Your task to perform on an android device: Open Yahoo.com Image 0: 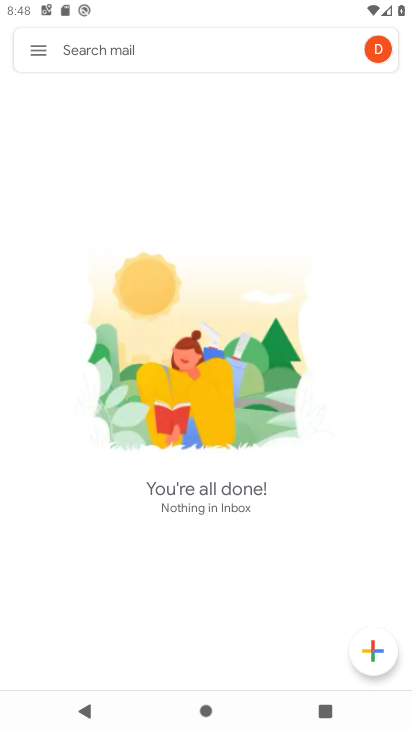
Step 0: press home button
Your task to perform on an android device: Open Yahoo.com Image 1: 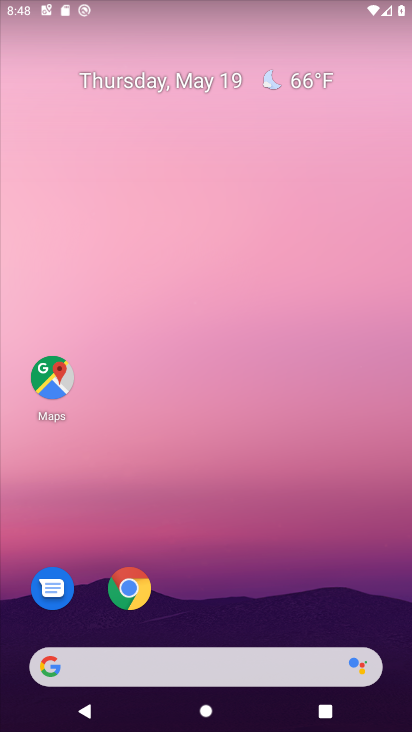
Step 1: drag from (367, 589) to (352, 228)
Your task to perform on an android device: Open Yahoo.com Image 2: 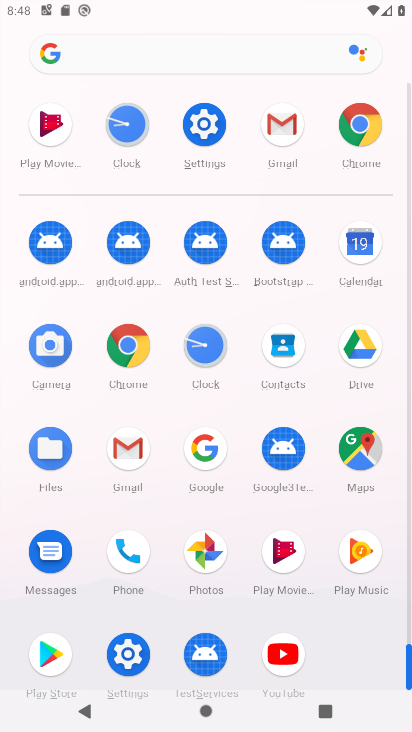
Step 2: click (129, 358)
Your task to perform on an android device: Open Yahoo.com Image 3: 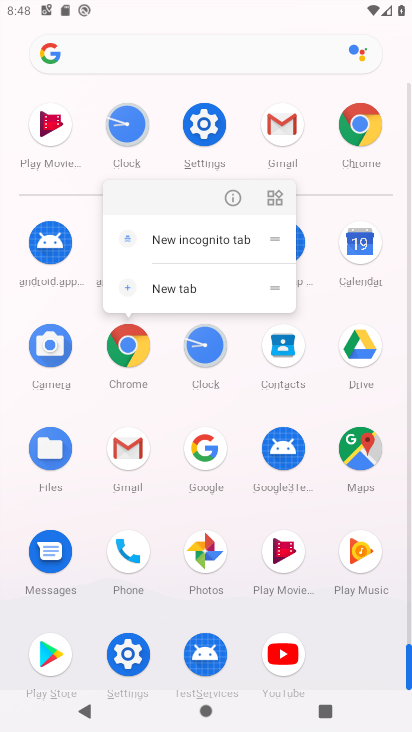
Step 3: click (129, 358)
Your task to perform on an android device: Open Yahoo.com Image 4: 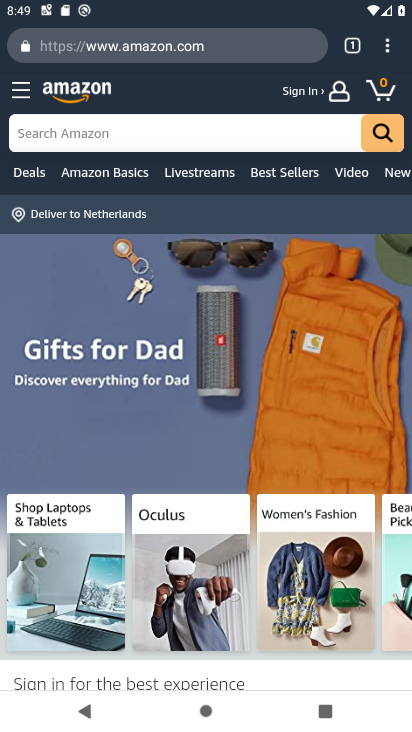
Step 4: press back button
Your task to perform on an android device: Open Yahoo.com Image 5: 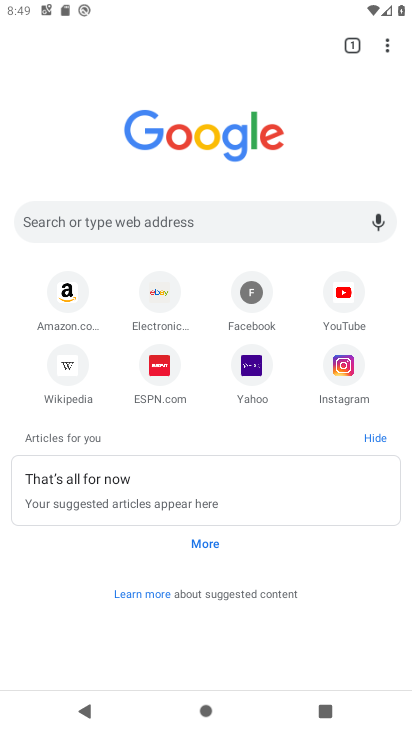
Step 5: click (248, 375)
Your task to perform on an android device: Open Yahoo.com Image 6: 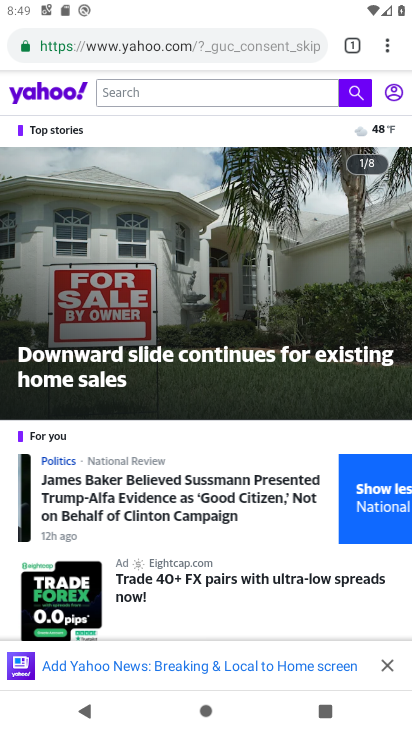
Step 6: task complete